Your task to perform on an android device: turn on location history Image 0: 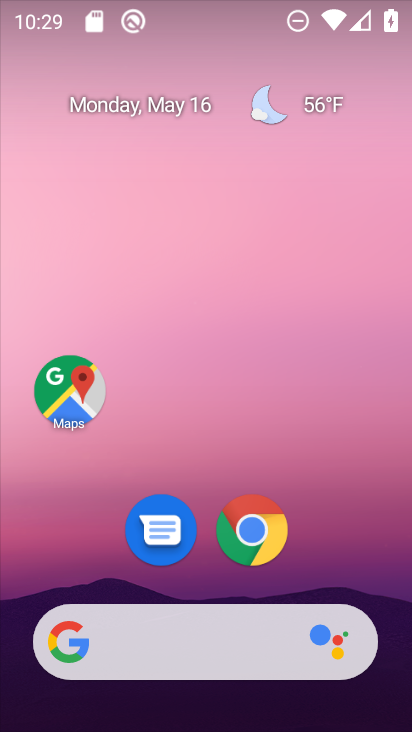
Step 0: drag from (247, 615) to (86, 4)
Your task to perform on an android device: turn on location history Image 1: 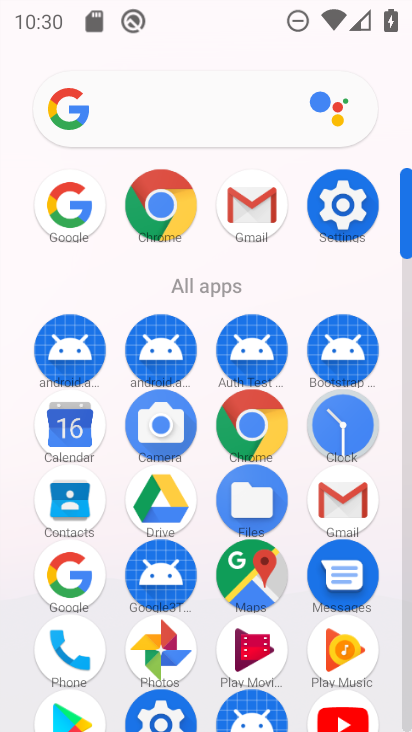
Step 1: click (333, 209)
Your task to perform on an android device: turn on location history Image 2: 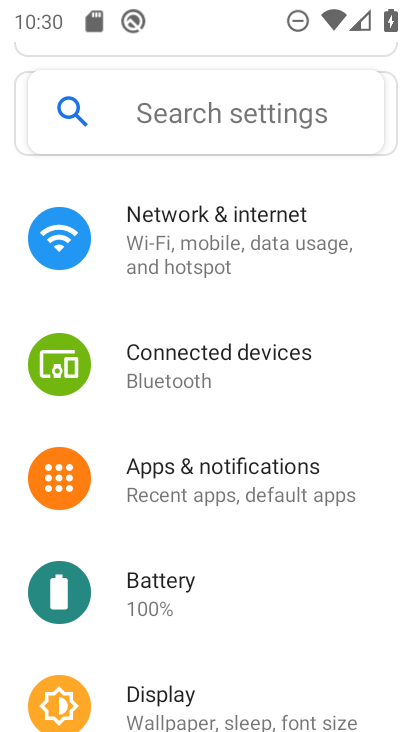
Step 2: drag from (134, 568) to (167, 8)
Your task to perform on an android device: turn on location history Image 3: 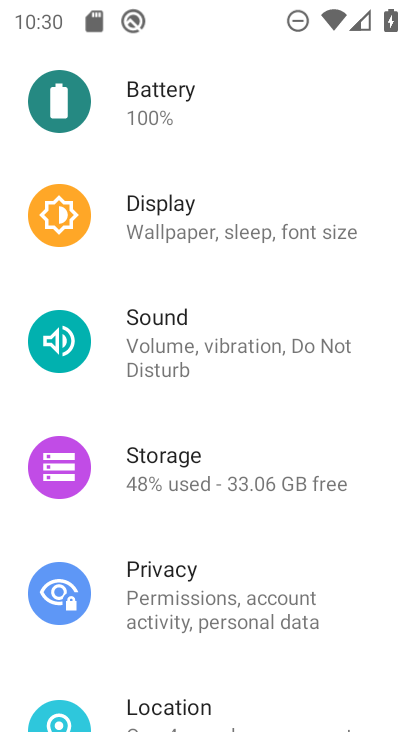
Step 3: click (185, 695)
Your task to perform on an android device: turn on location history Image 4: 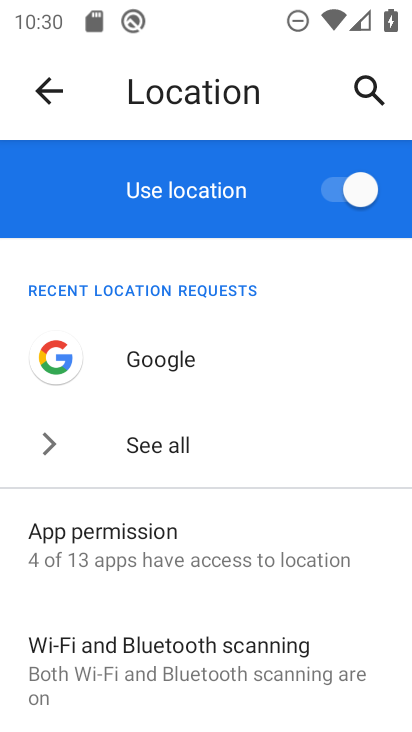
Step 4: drag from (302, 553) to (55, 16)
Your task to perform on an android device: turn on location history Image 5: 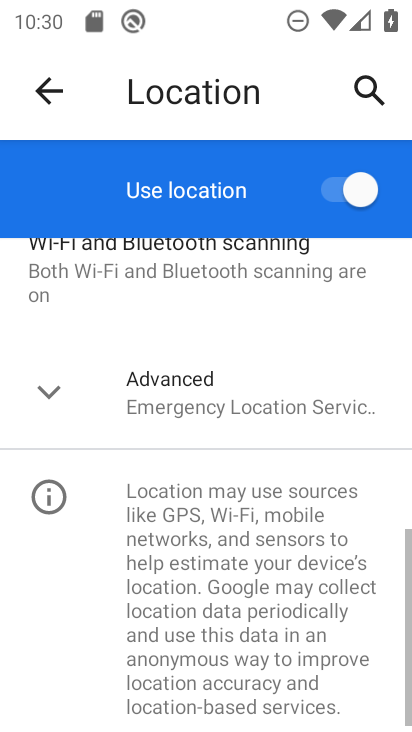
Step 5: click (174, 387)
Your task to perform on an android device: turn on location history Image 6: 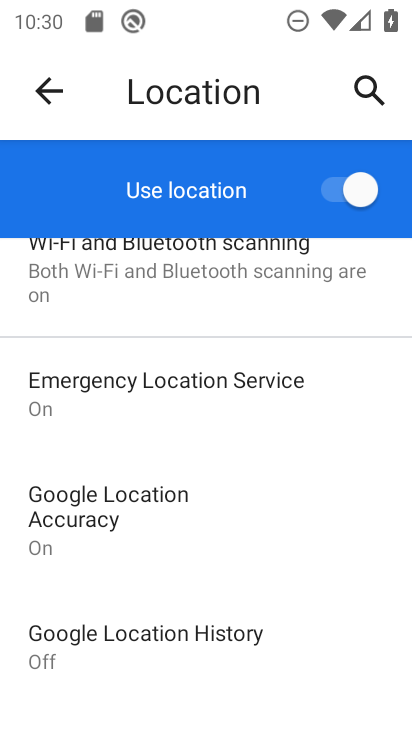
Step 6: click (201, 627)
Your task to perform on an android device: turn on location history Image 7: 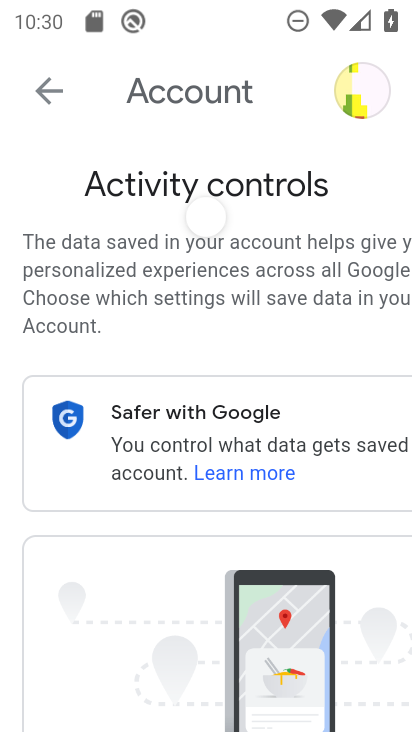
Step 7: task complete